Your task to perform on an android device: uninstall "Venmo" Image 0: 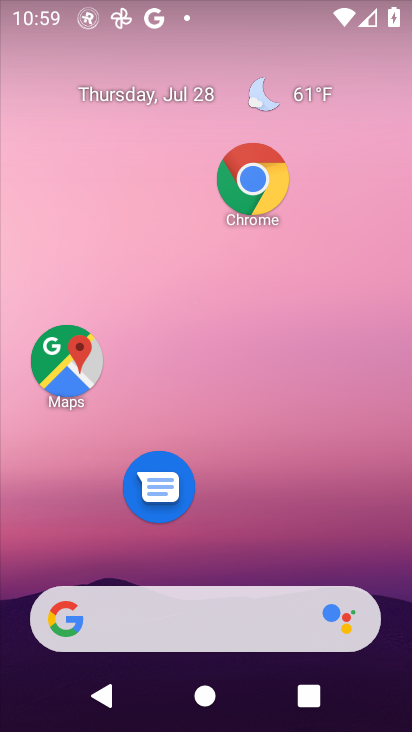
Step 0: drag from (272, 664) to (267, 225)
Your task to perform on an android device: uninstall "Venmo" Image 1: 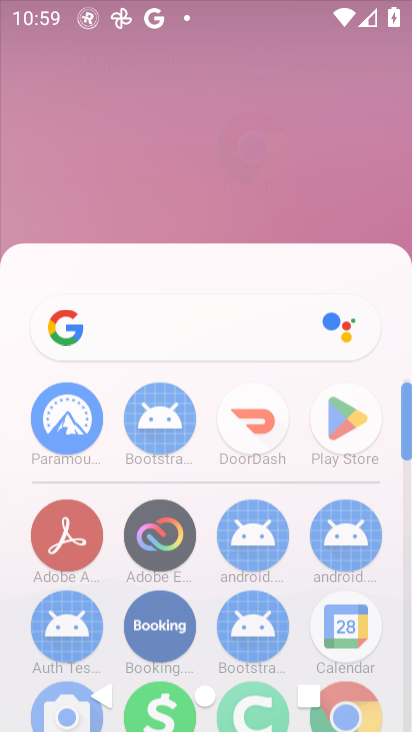
Step 1: drag from (274, 543) to (259, 320)
Your task to perform on an android device: uninstall "Venmo" Image 2: 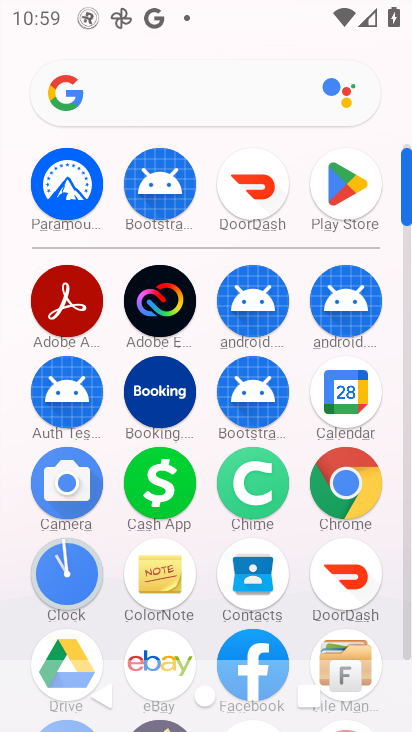
Step 2: click (340, 207)
Your task to perform on an android device: uninstall "Venmo" Image 3: 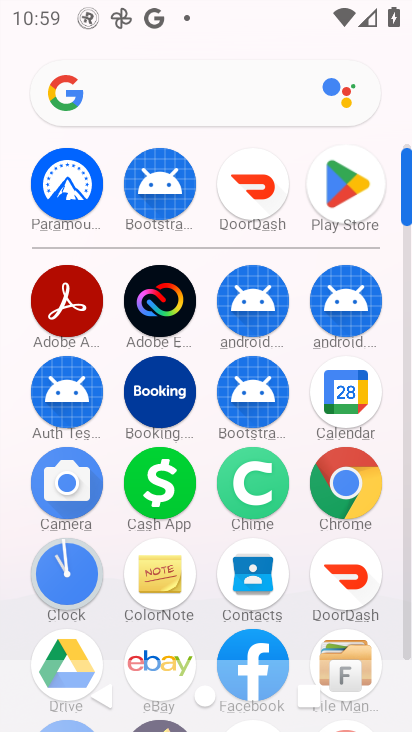
Step 3: click (339, 207)
Your task to perform on an android device: uninstall "Venmo" Image 4: 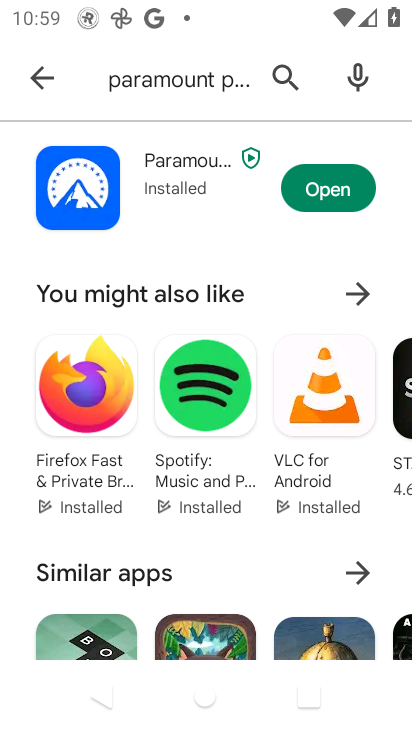
Step 4: click (31, 88)
Your task to perform on an android device: uninstall "Venmo" Image 5: 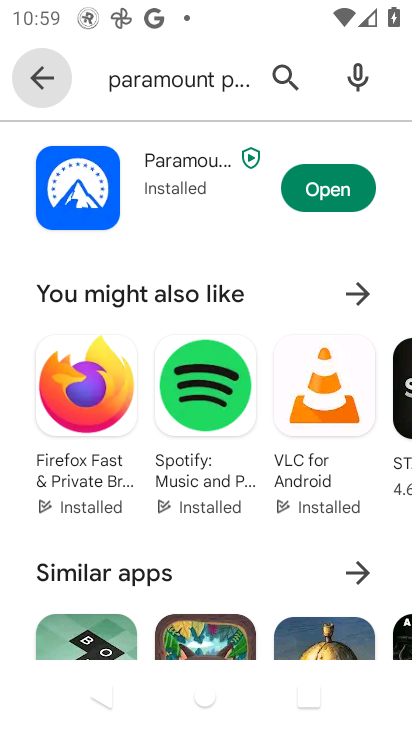
Step 5: click (32, 88)
Your task to perform on an android device: uninstall "Venmo" Image 6: 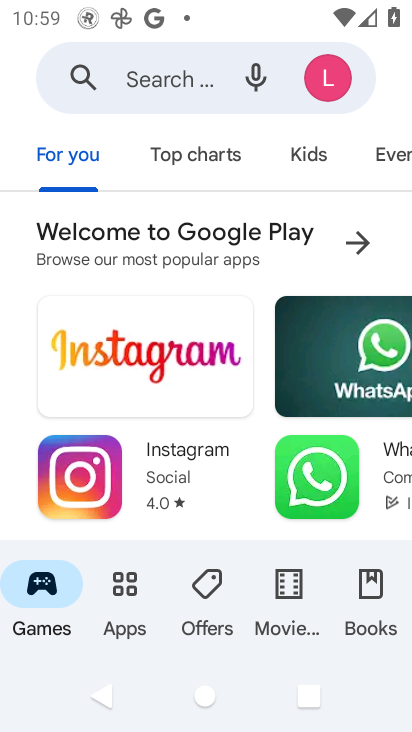
Step 6: click (192, 79)
Your task to perform on an android device: uninstall "Venmo" Image 7: 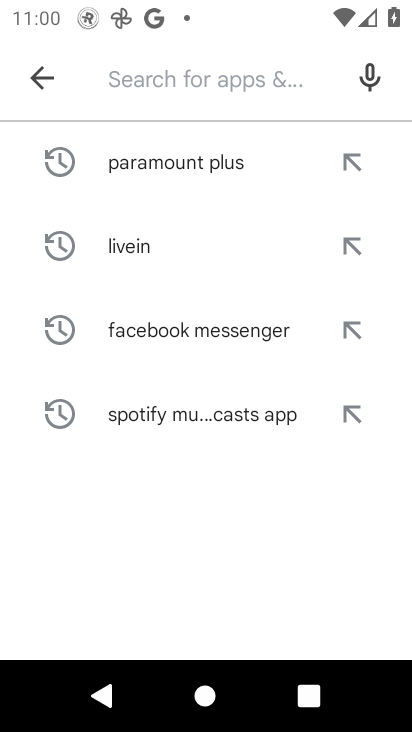
Step 7: type "Venmo"
Your task to perform on an android device: uninstall "Venmo" Image 8: 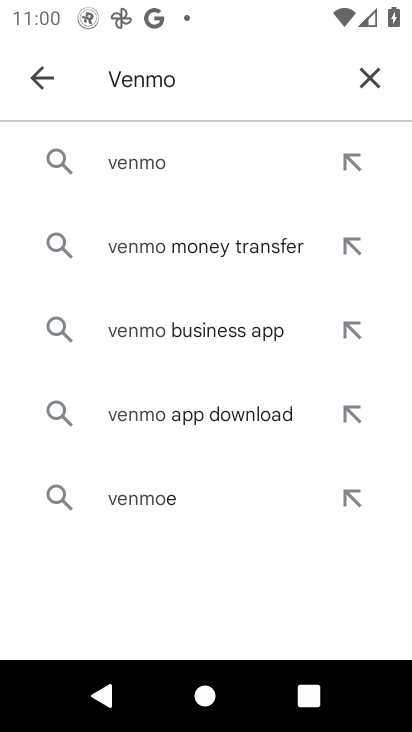
Step 8: click (130, 161)
Your task to perform on an android device: uninstall "Venmo" Image 9: 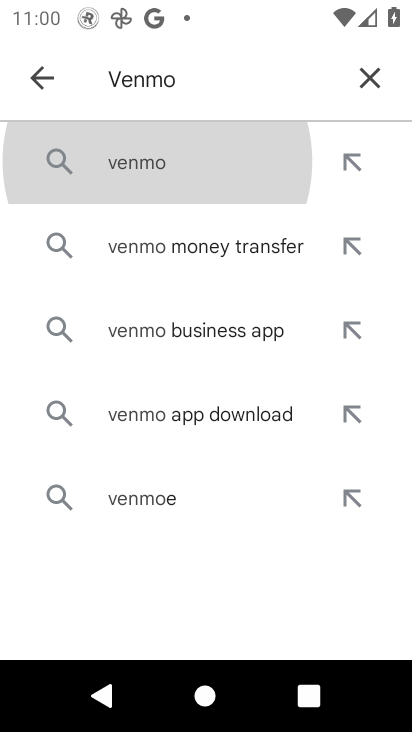
Step 9: click (128, 159)
Your task to perform on an android device: uninstall "Venmo" Image 10: 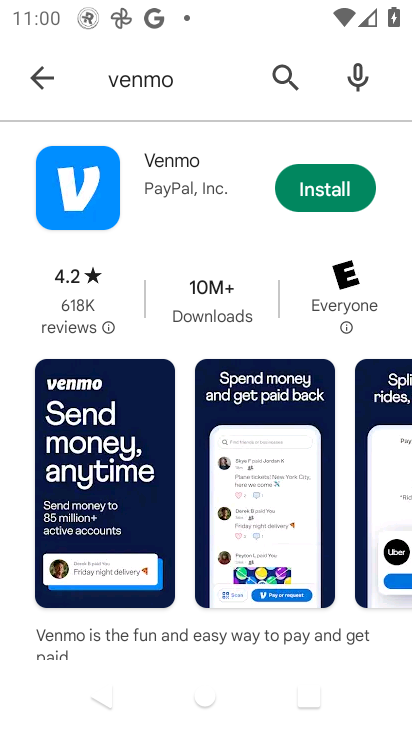
Step 10: task complete